Your task to perform on an android device: change notifications settings Image 0: 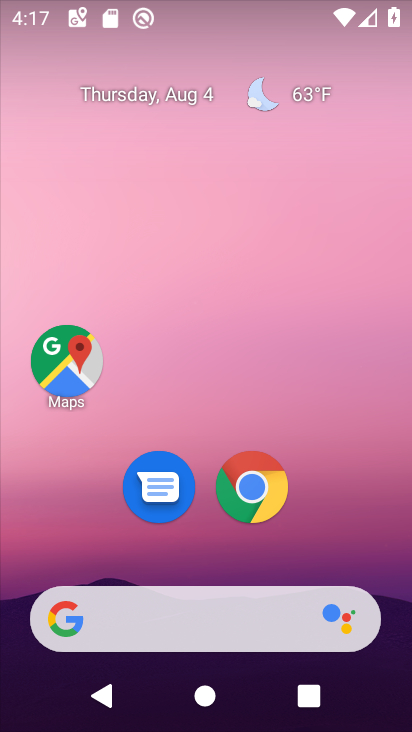
Step 0: drag from (248, 586) to (341, 24)
Your task to perform on an android device: change notifications settings Image 1: 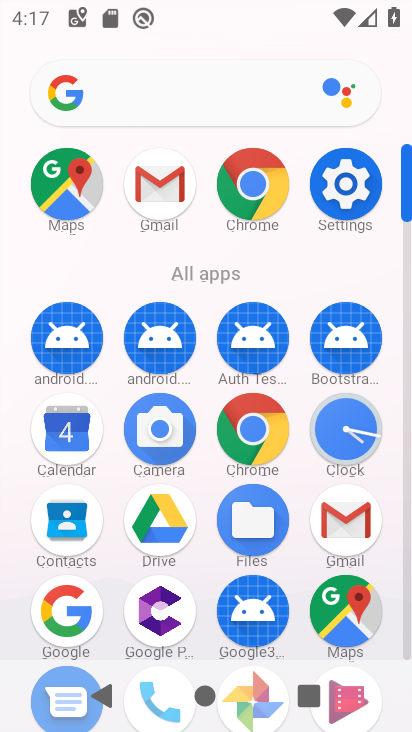
Step 1: click (342, 178)
Your task to perform on an android device: change notifications settings Image 2: 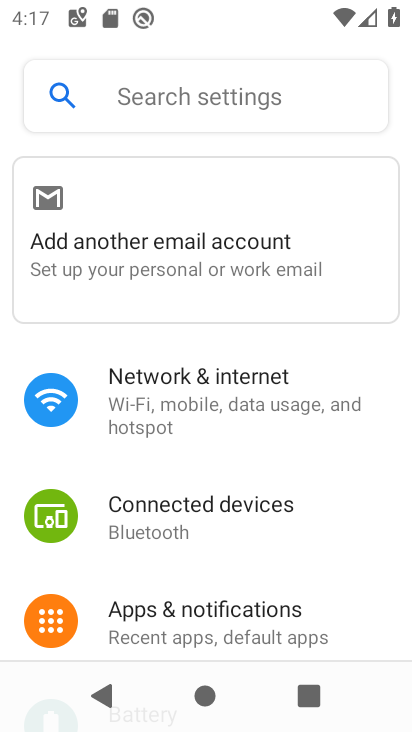
Step 2: click (165, 621)
Your task to perform on an android device: change notifications settings Image 3: 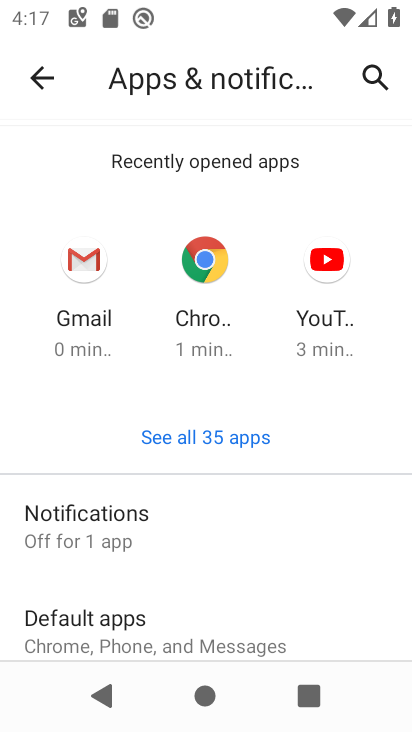
Step 3: click (135, 530)
Your task to perform on an android device: change notifications settings Image 4: 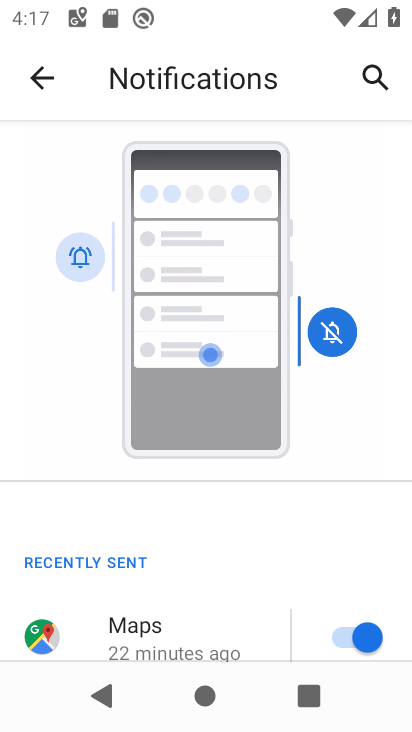
Step 4: drag from (136, 603) to (227, 99)
Your task to perform on an android device: change notifications settings Image 5: 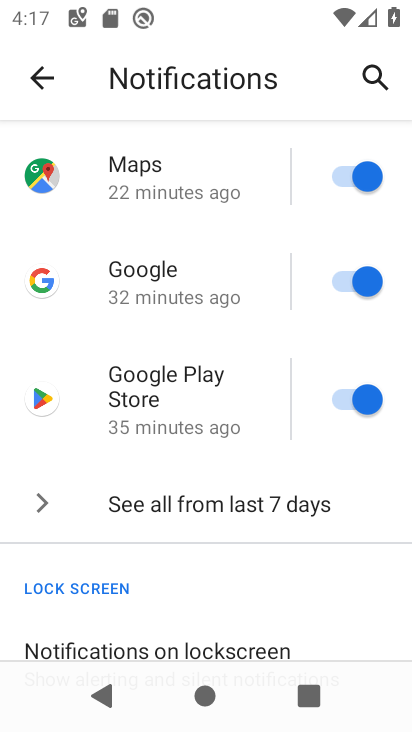
Step 5: drag from (173, 561) to (235, 92)
Your task to perform on an android device: change notifications settings Image 6: 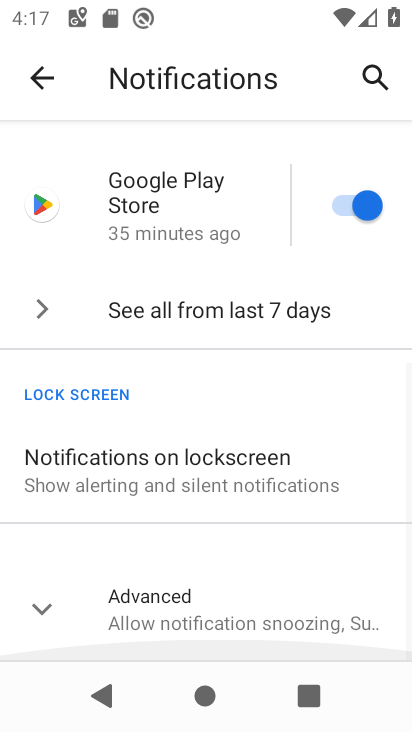
Step 6: click (162, 617)
Your task to perform on an android device: change notifications settings Image 7: 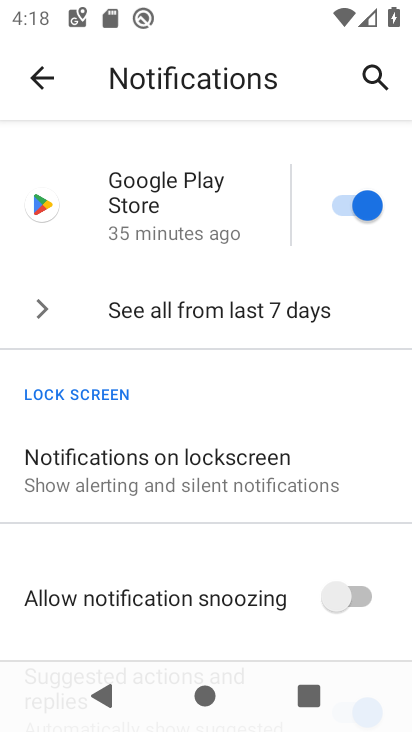
Step 7: click (329, 598)
Your task to perform on an android device: change notifications settings Image 8: 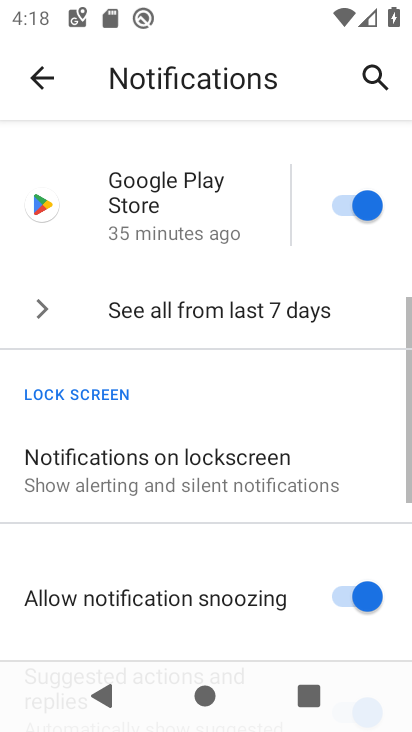
Step 8: task complete